Your task to perform on an android device: Open the Play Movies app and select the watchlist tab. Image 0: 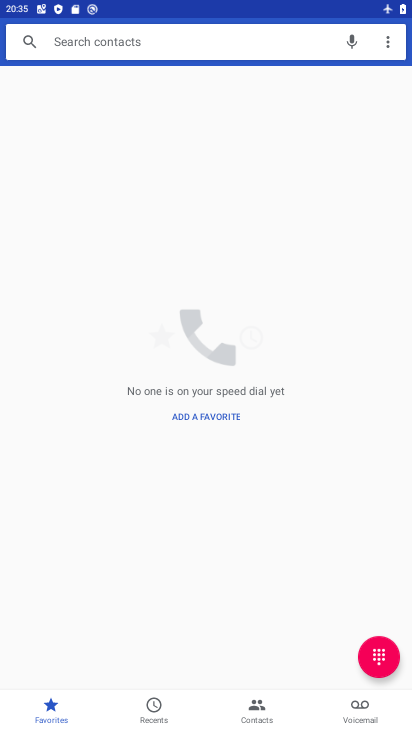
Step 0: press home button
Your task to perform on an android device: Open the Play Movies app and select the watchlist tab. Image 1: 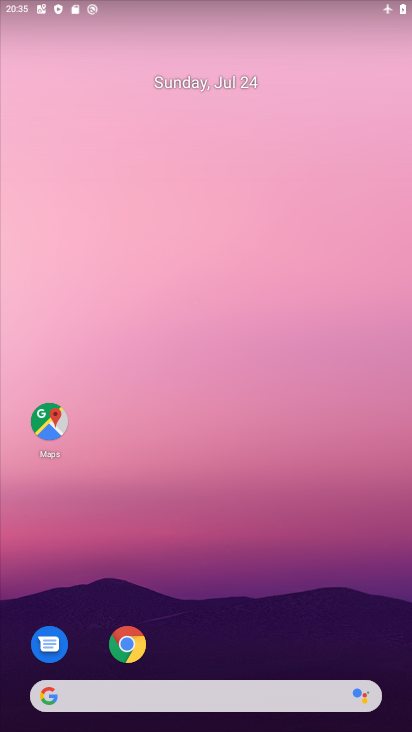
Step 1: drag from (381, 632) to (349, 128)
Your task to perform on an android device: Open the Play Movies app and select the watchlist tab. Image 2: 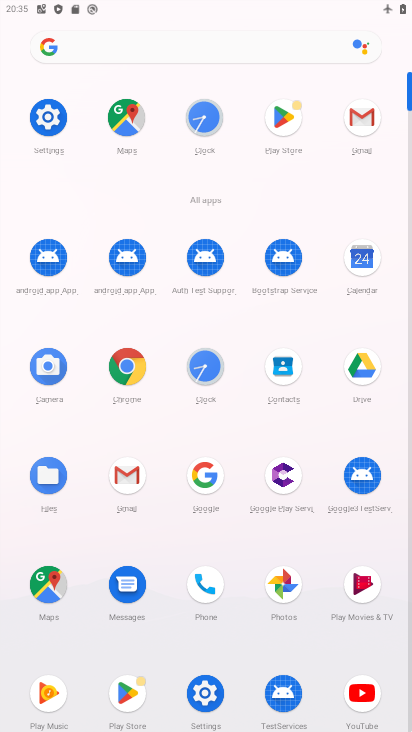
Step 2: click (363, 586)
Your task to perform on an android device: Open the Play Movies app and select the watchlist tab. Image 3: 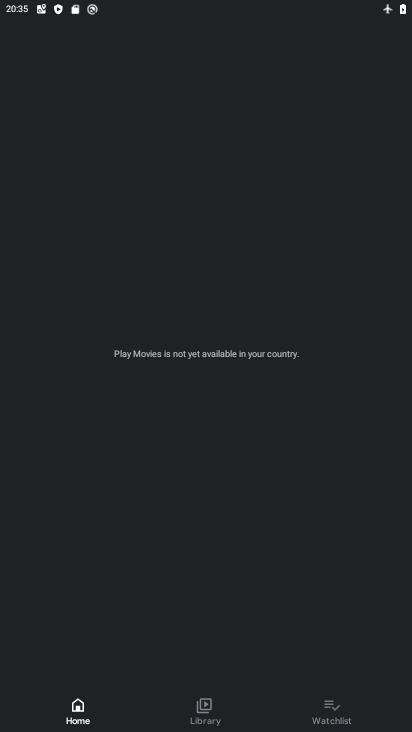
Step 3: click (329, 707)
Your task to perform on an android device: Open the Play Movies app and select the watchlist tab. Image 4: 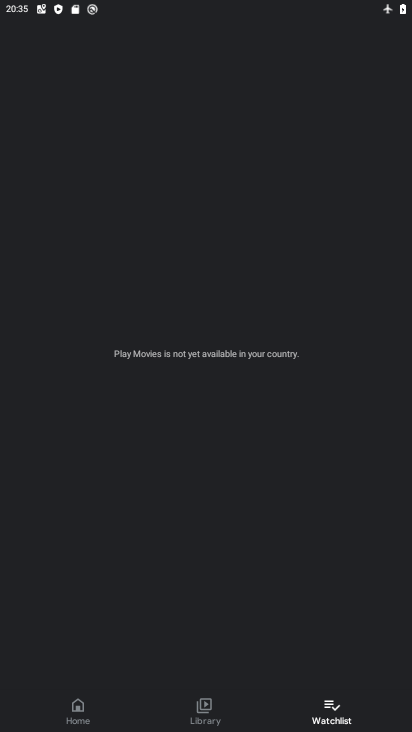
Step 4: task complete